Your task to perform on an android device: What's the weather? Image 0: 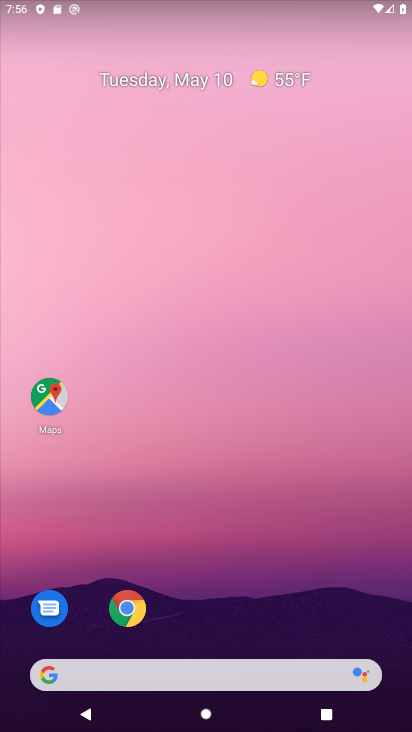
Step 0: drag from (235, 591) to (173, 115)
Your task to perform on an android device: What's the weather? Image 1: 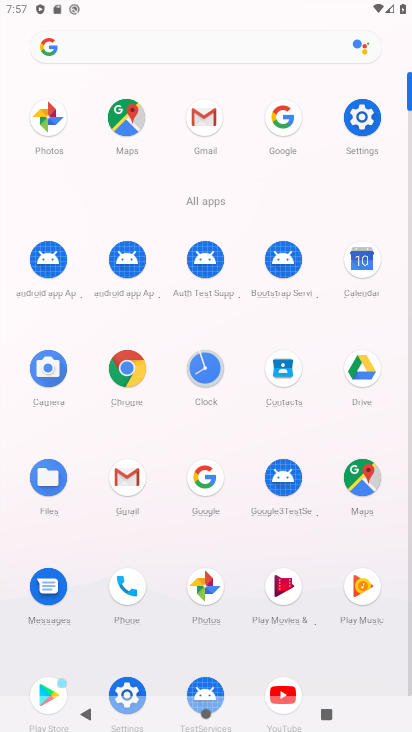
Step 1: click (202, 477)
Your task to perform on an android device: What's the weather? Image 2: 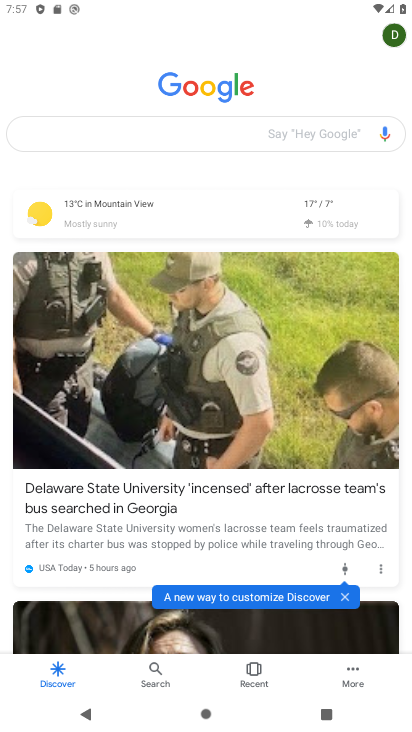
Step 2: click (292, 128)
Your task to perform on an android device: What's the weather? Image 3: 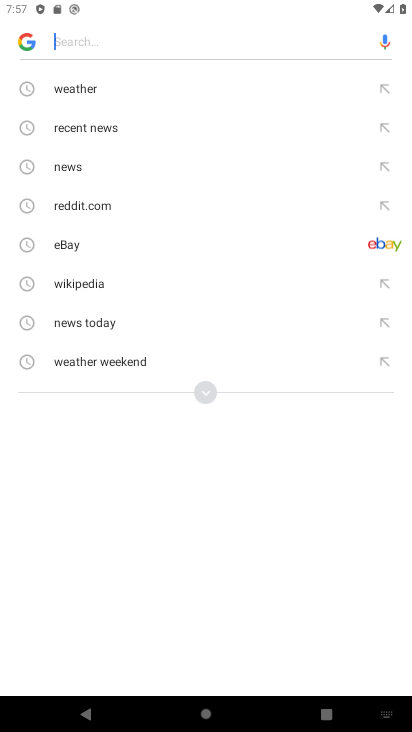
Step 3: click (81, 87)
Your task to perform on an android device: What's the weather? Image 4: 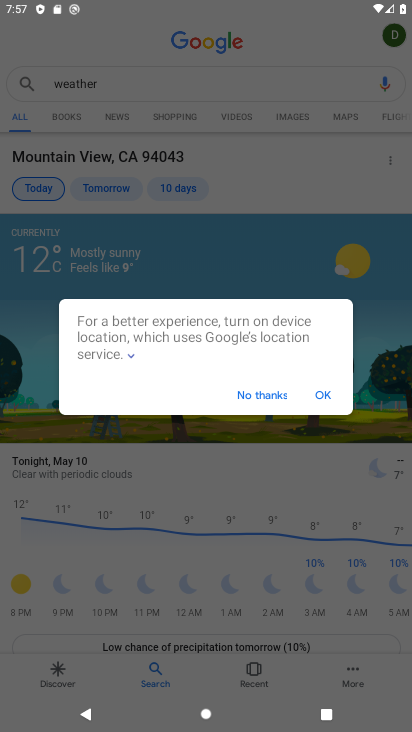
Step 4: click (279, 397)
Your task to perform on an android device: What's the weather? Image 5: 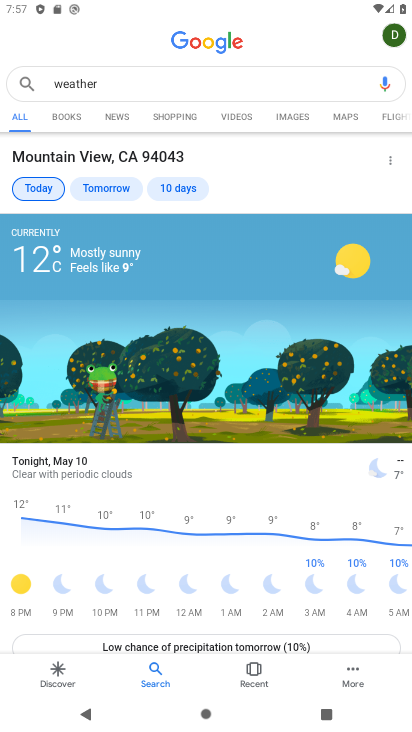
Step 5: task complete